Your task to perform on an android device: remove spam from my inbox in the gmail app Image 0: 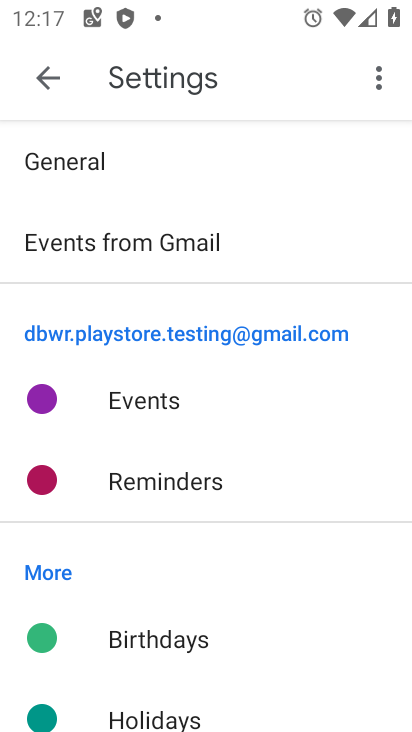
Step 0: press home button
Your task to perform on an android device: remove spam from my inbox in the gmail app Image 1: 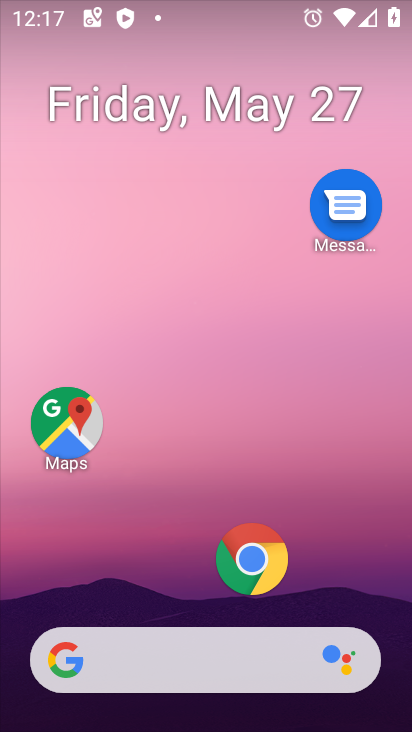
Step 1: drag from (107, 617) to (153, 215)
Your task to perform on an android device: remove spam from my inbox in the gmail app Image 2: 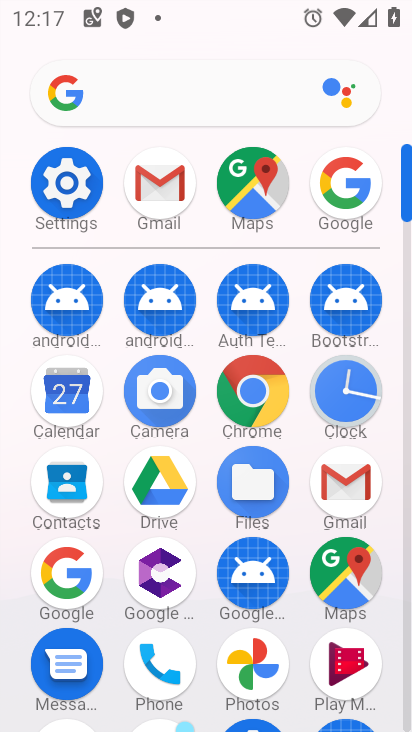
Step 2: click (355, 506)
Your task to perform on an android device: remove spam from my inbox in the gmail app Image 3: 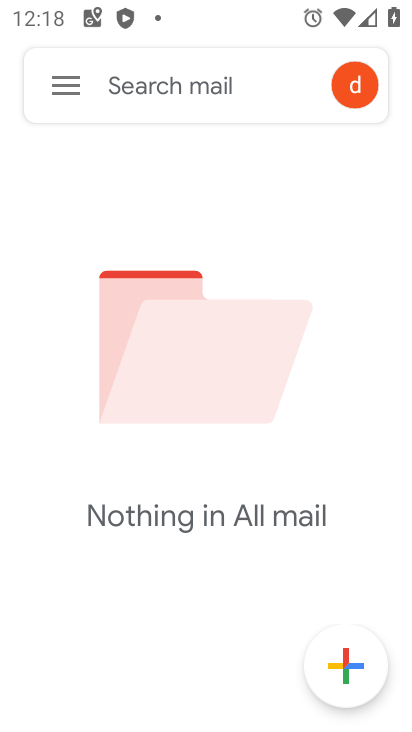
Step 3: click (55, 86)
Your task to perform on an android device: remove spam from my inbox in the gmail app Image 4: 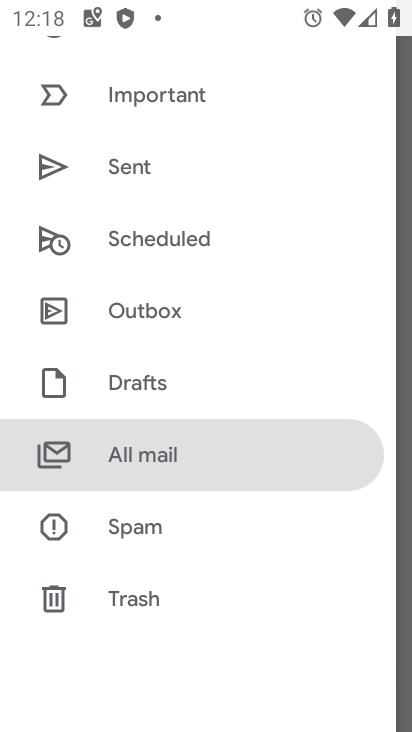
Step 4: task complete